Your task to perform on an android device: show emergency info Image 0: 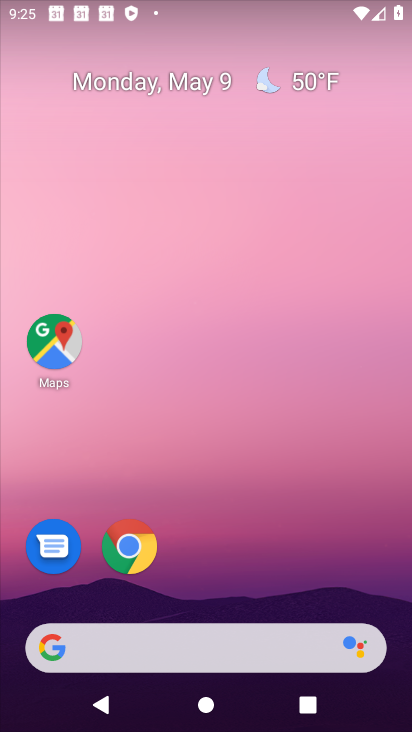
Step 0: drag from (253, 588) to (292, 31)
Your task to perform on an android device: show emergency info Image 1: 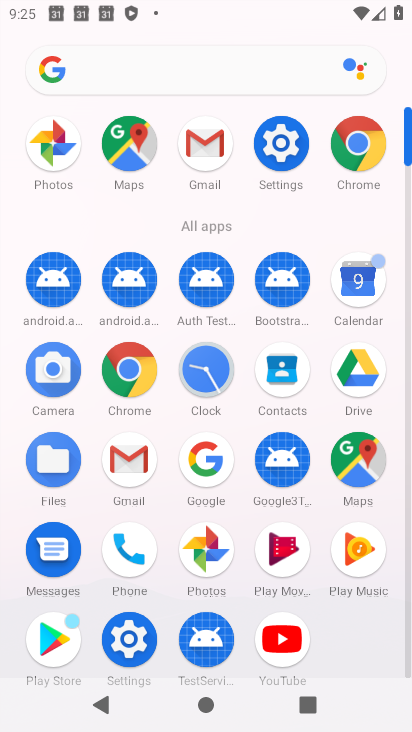
Step 1: click (305, 164)
Your task to perform on an android device: show emergency info Image 2: 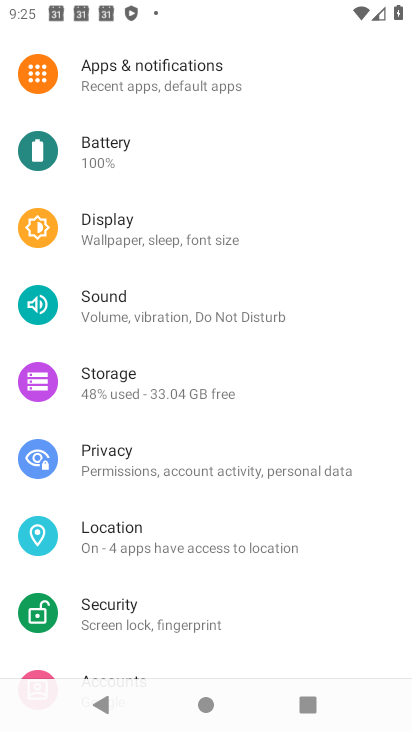
Step 2: drag from (166, 591) to (172, 58)
Your task to perform on an android device: show emergency info Image 3: 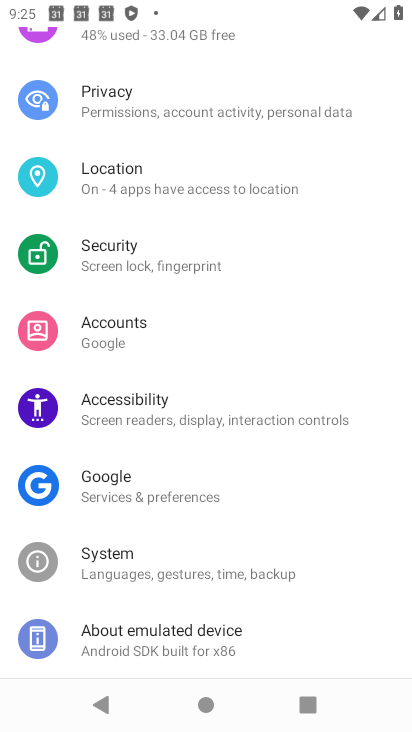
Step 3: click (174, 637)
Your task to perform on an android device: show emergency info Image 4: 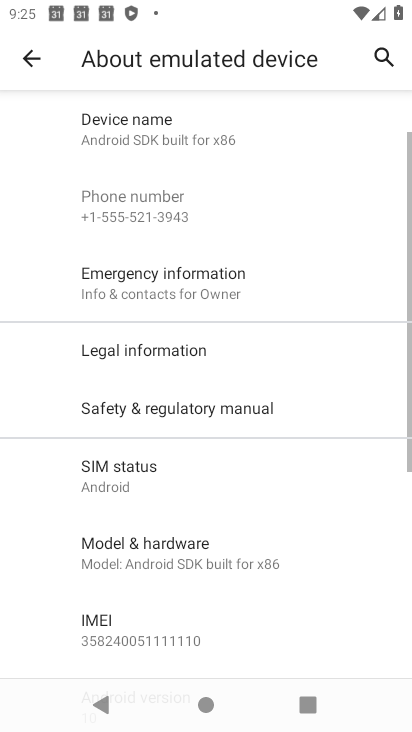
Step 4: click (227, 287)
Your task to perform on an android device: show emergency info Image 5: 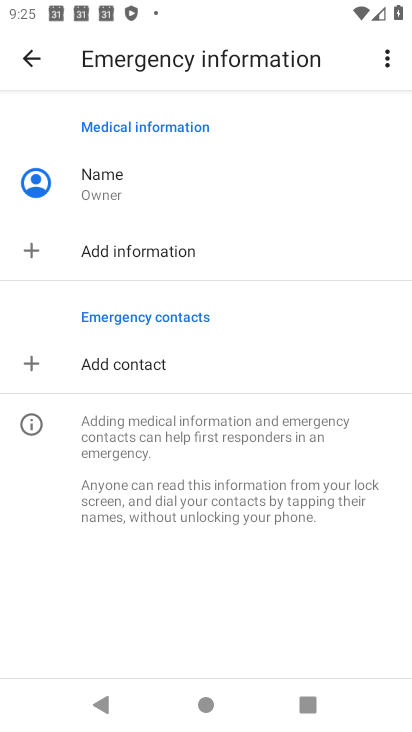
Step 5: task complete